Your task to perform on an android device: delete browsing data in the chrome app Image 0: 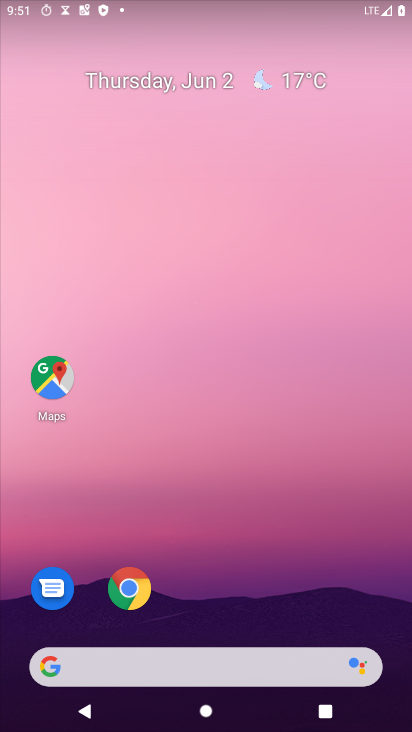
Step 0: click (131, 580)
Your task to perform on an android device: delete browsing data in the chrome app Image 1: 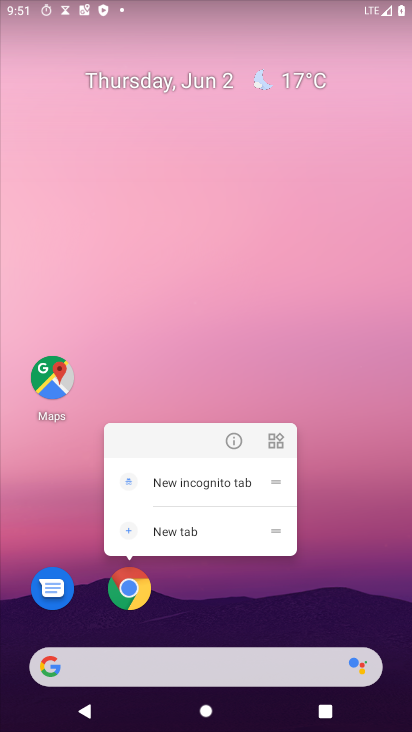
Step 1: click (129, 590)
Your task to perform on an android device: delete browsing data in the chrome app Image 2: 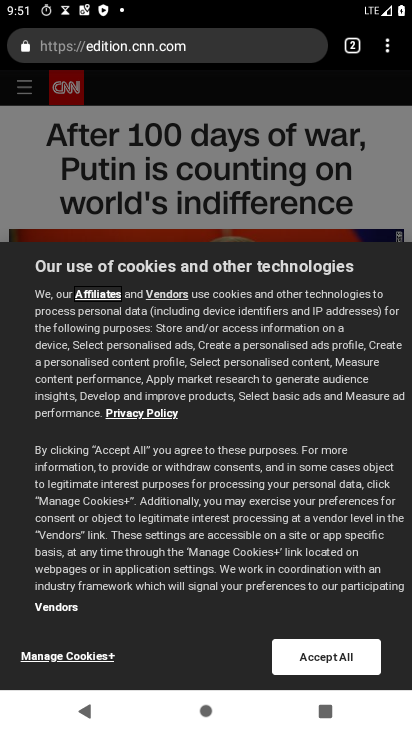
Step 2: drag from (385, 44) to (226, 260)
Your task to perform on an android device: delete browsing data in the chrome app Image 3: 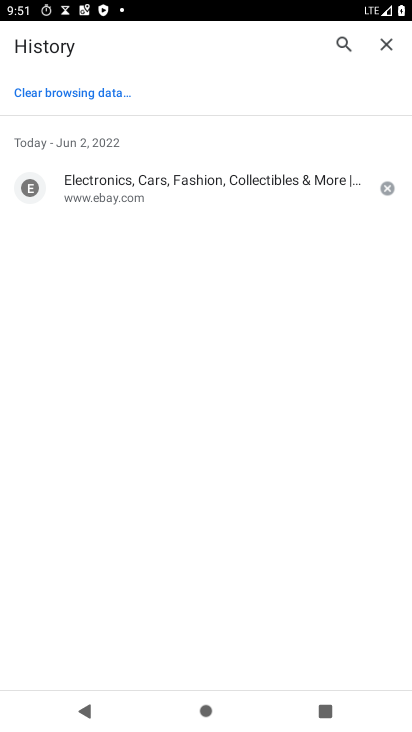
Step 3: click (62, 80)
Your task to perform on an android device: delete browsing data in the chrome app Image 4: 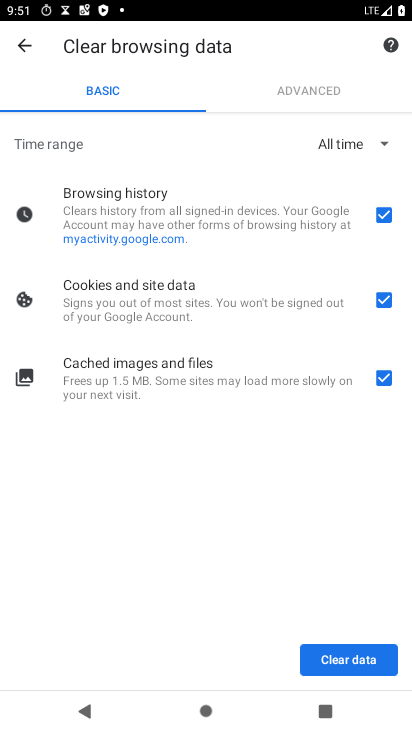
Step 4: click (361, 663)
Your task to perform on an android device: delete browsing data in the chrome app Image 5: 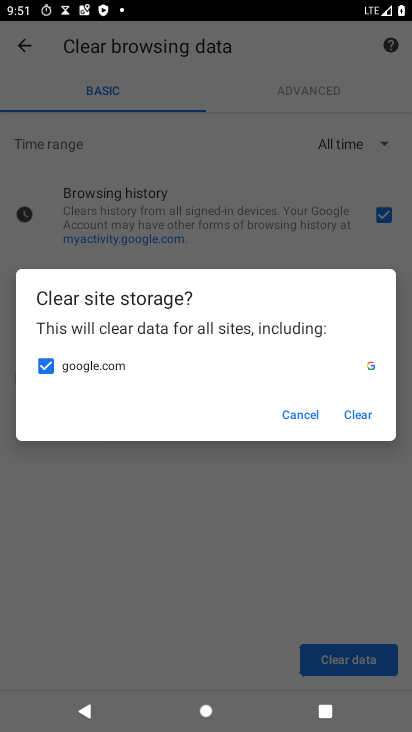
Step 5: click (368, 426)
Your task to perform on an android device: delete browsing data in the chrome app Image 6: 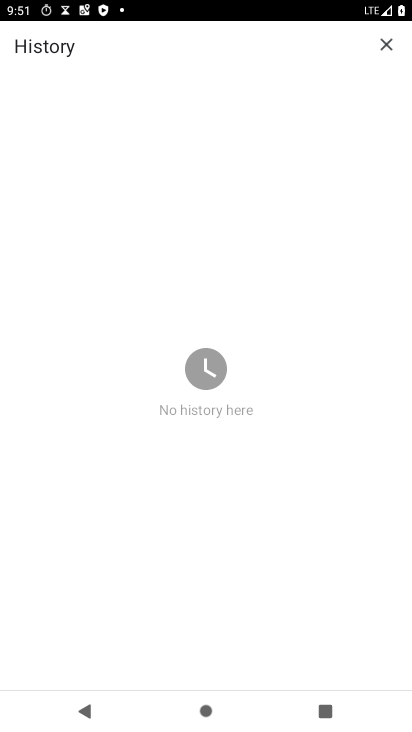
Step 6: task complete